Your task to perform on an android device: Is it going to rain today? Image 0: 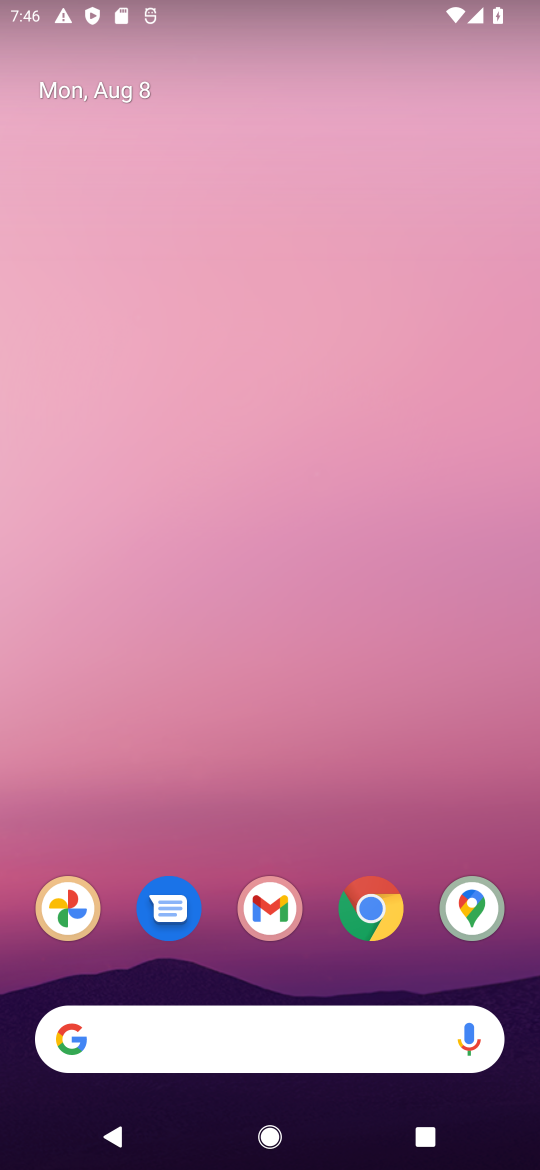
Step 0: click (321, 1048)
Your task to perform on an android device: Is it going to rain today? Image 1: 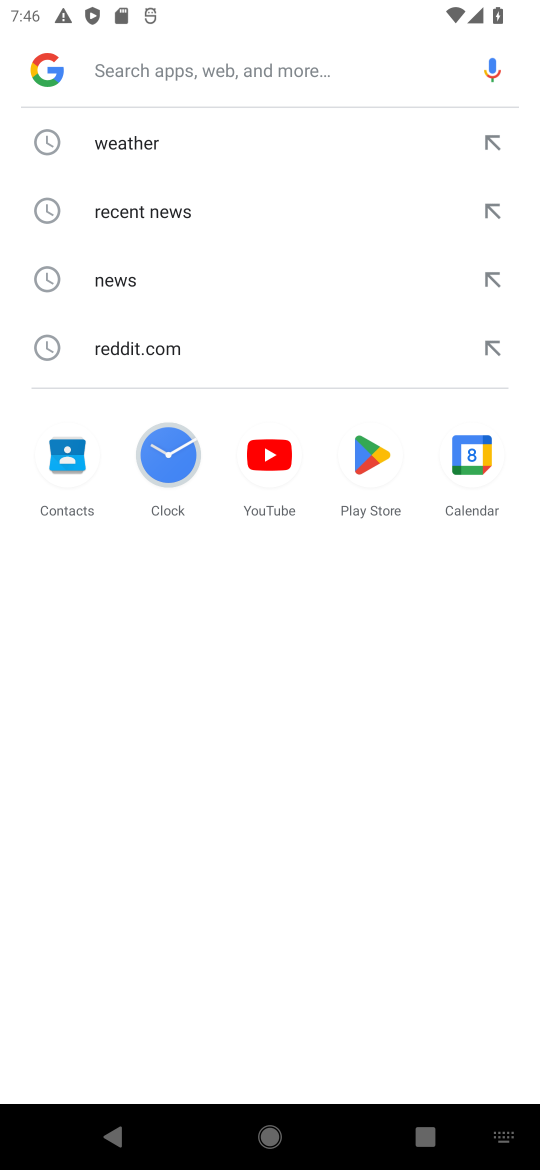
Step 1: click (125, 131)
Your task to perform on an android device: Is it going to rain today? Image 2: 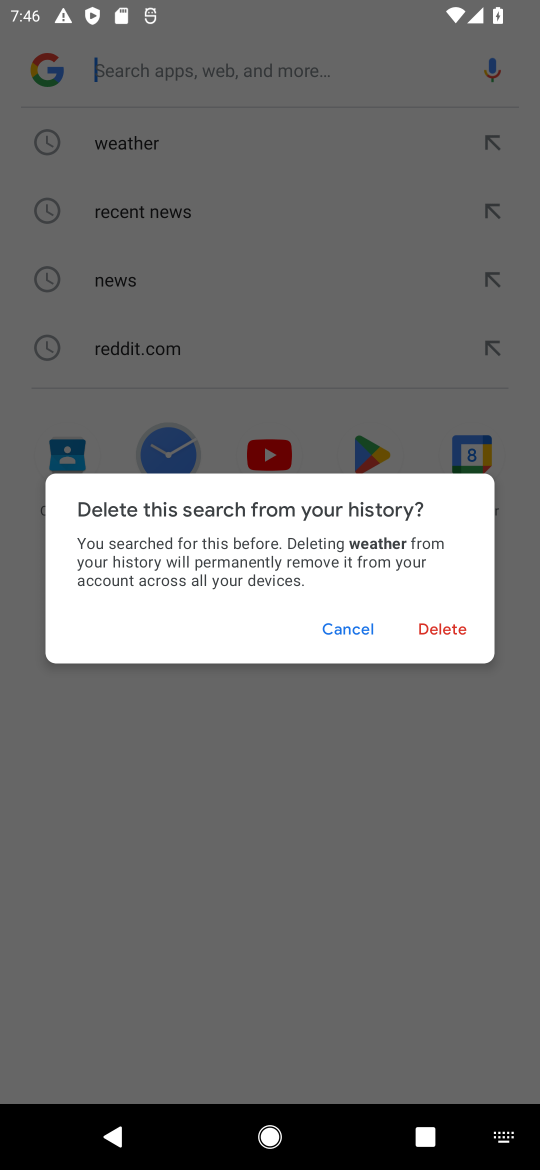
Step 2: click (350, 630)
Your task to perform on an android device: Is it going to rain today? Image 3: 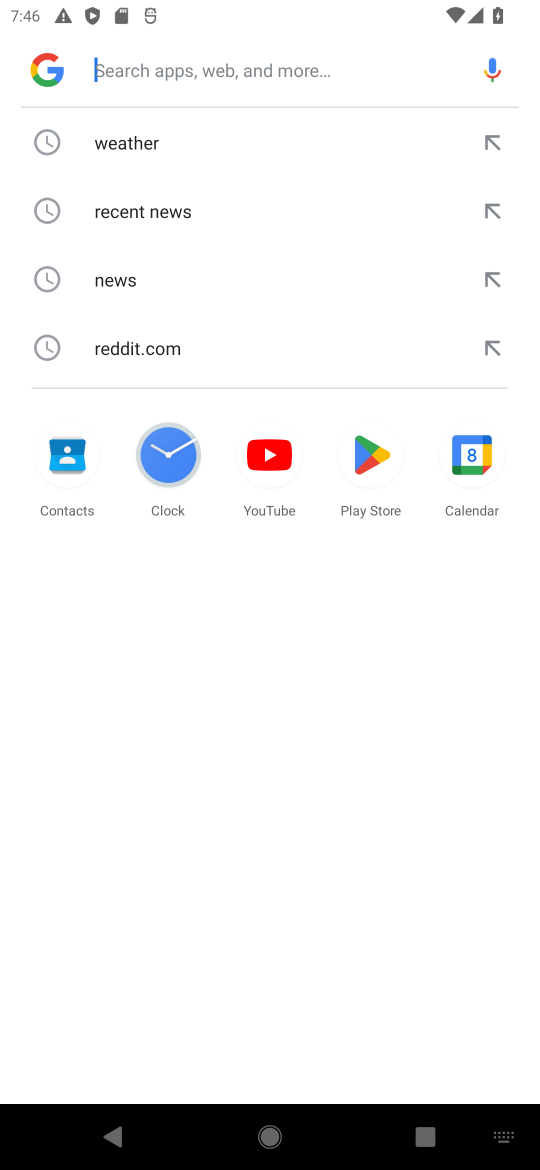
Step 3: click (177, 148)
Your task to perform on an android device: Is it going to rain today? Image 4: 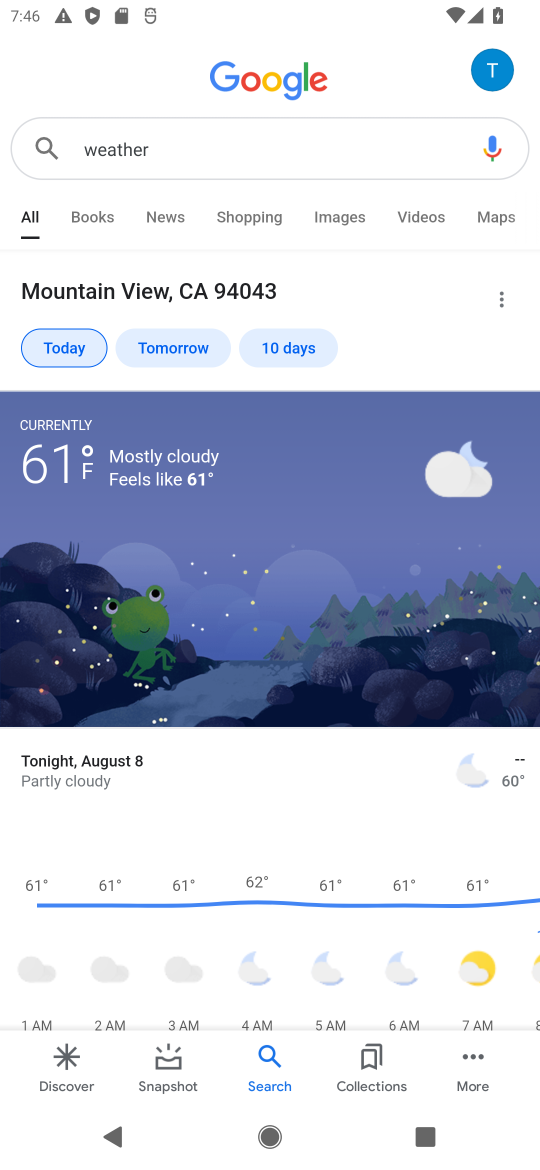
Step 4: task complete